Your task to perform on an android device: open app "Gmail" (install if not already installed) Image 0: 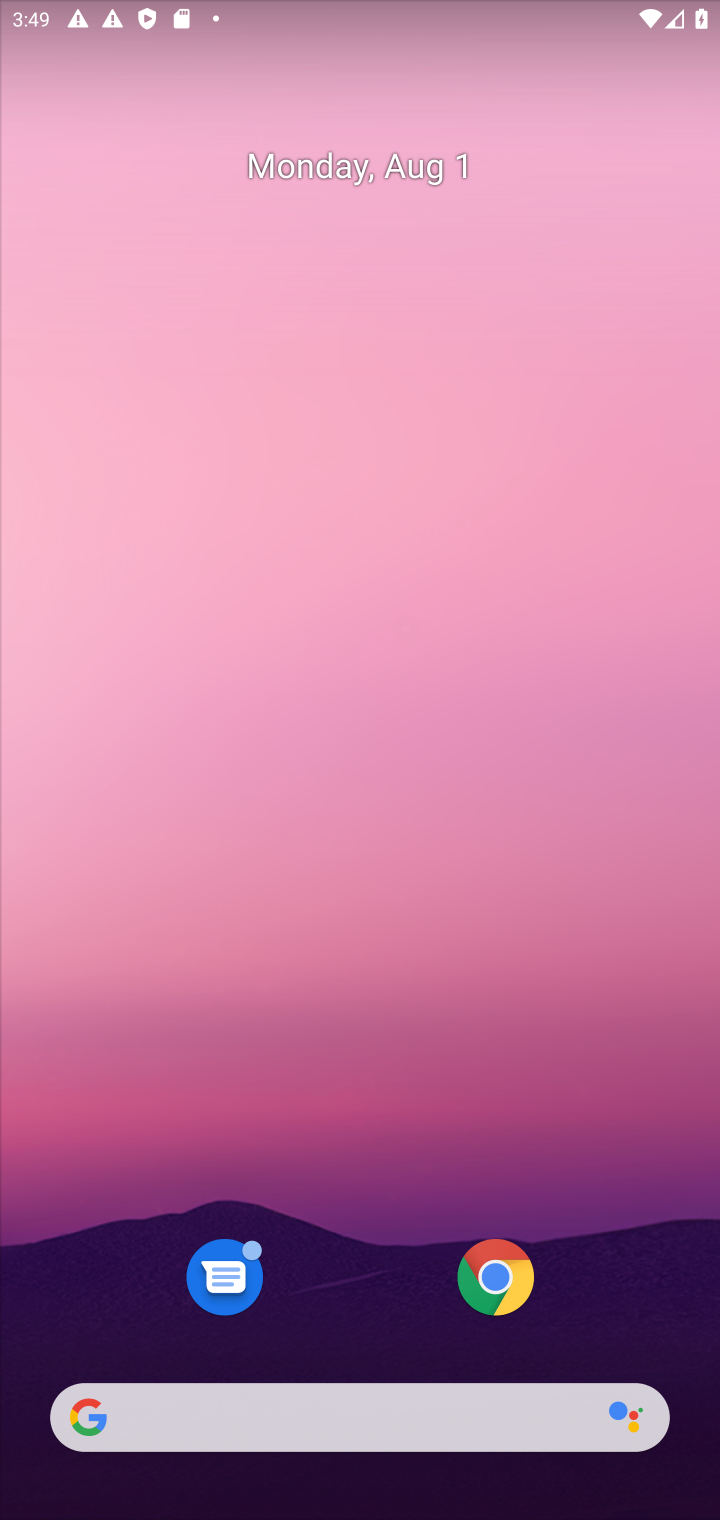
Step 0: drag from (338, 66) to (565, 92)
Your task to perform on an android device: open app "Gmail" (install if not already installed) Image 1: 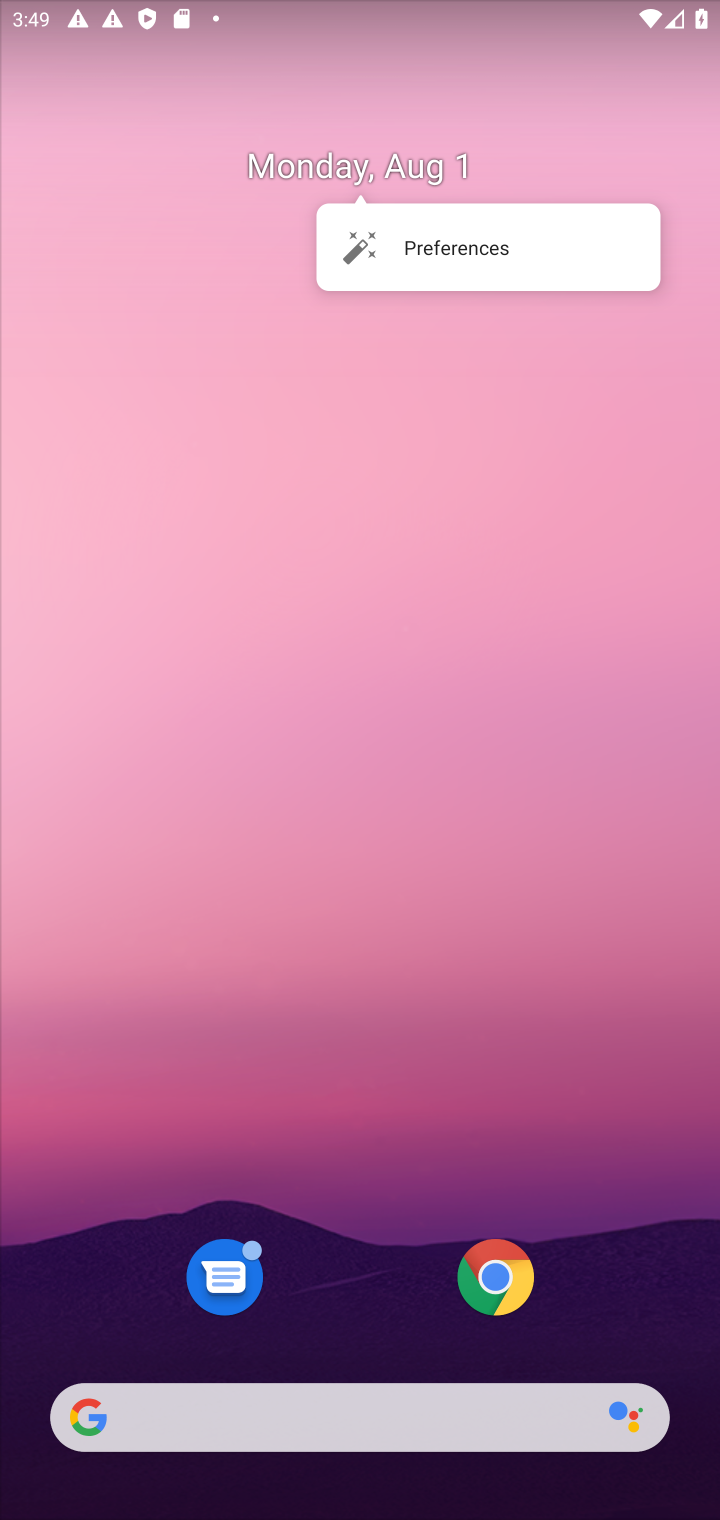
Step 1: drag from (345, 1266) to (686, 22)
Your task to perform on an android device: open app "Gmail" (install if not already installed) Image 2: 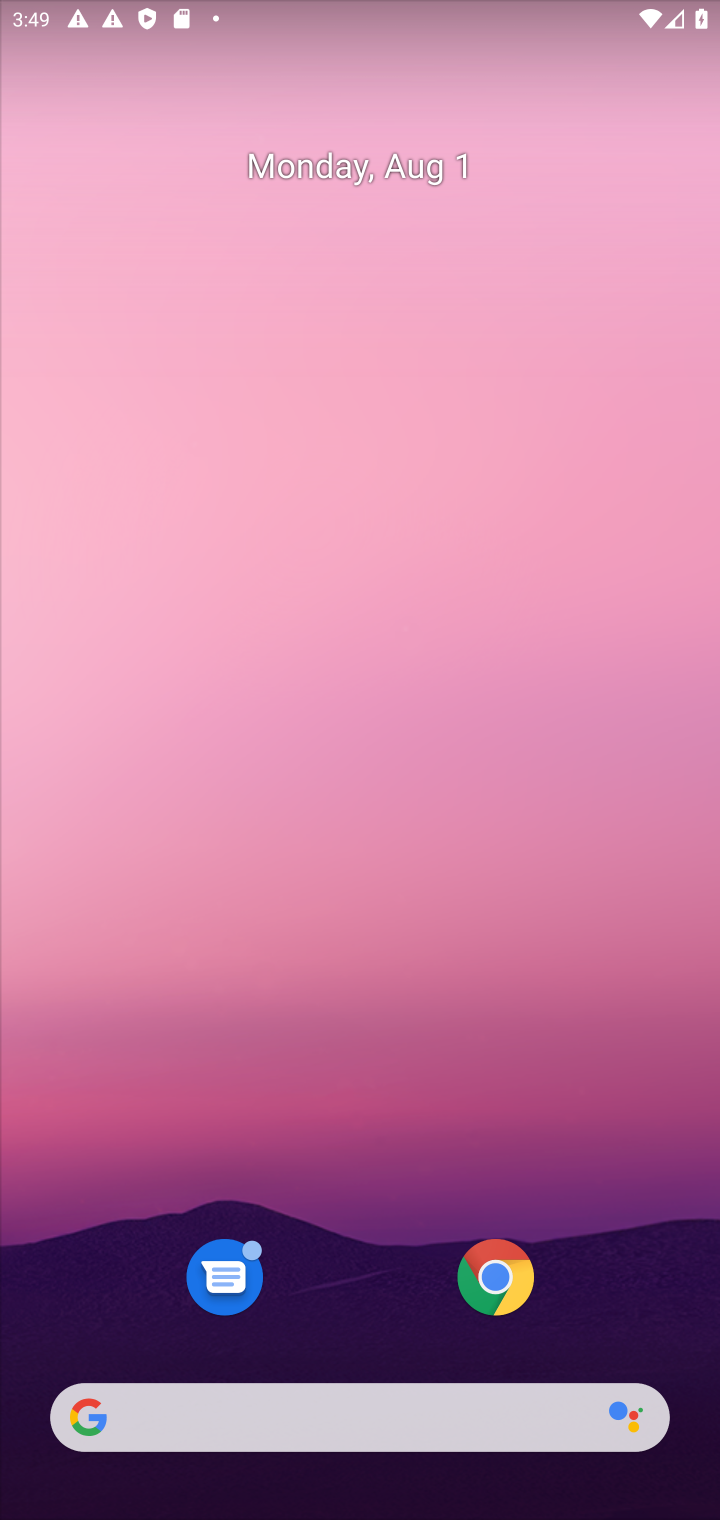
Step 2: drag from (241, 581) to (187, 47)
Your task to perform on an android device: open app "Gmail" (install if not already installed) Image 3: 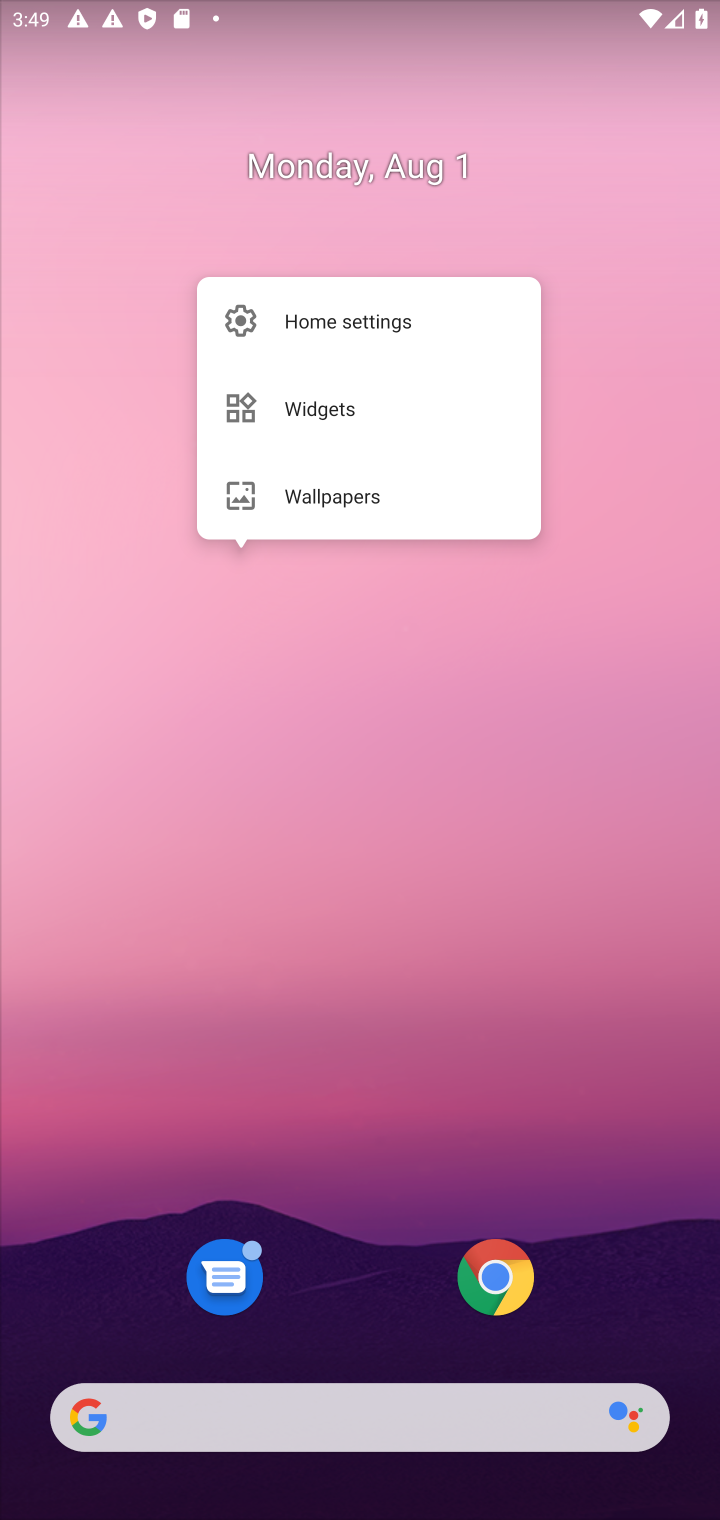
Step 3: drag from (364, 1330) to (446, 5)
Your task to perform on an android device: open app "Gmail" (install if not already installed) Image 4: 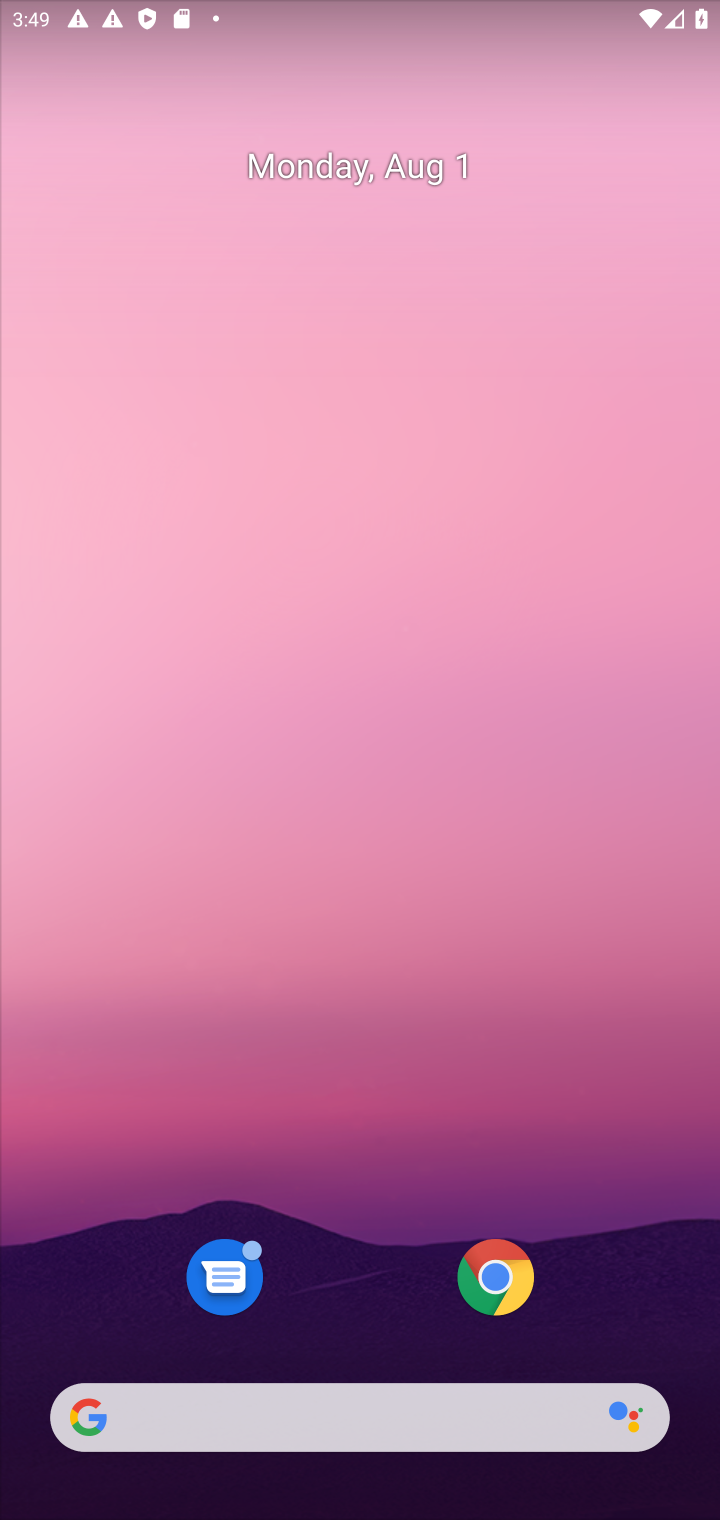
Step 4: drag from (336, 1335) to (413, 31)
Your task to perform on an android device: open app "Gmail" (install if not already installed) Image 5: 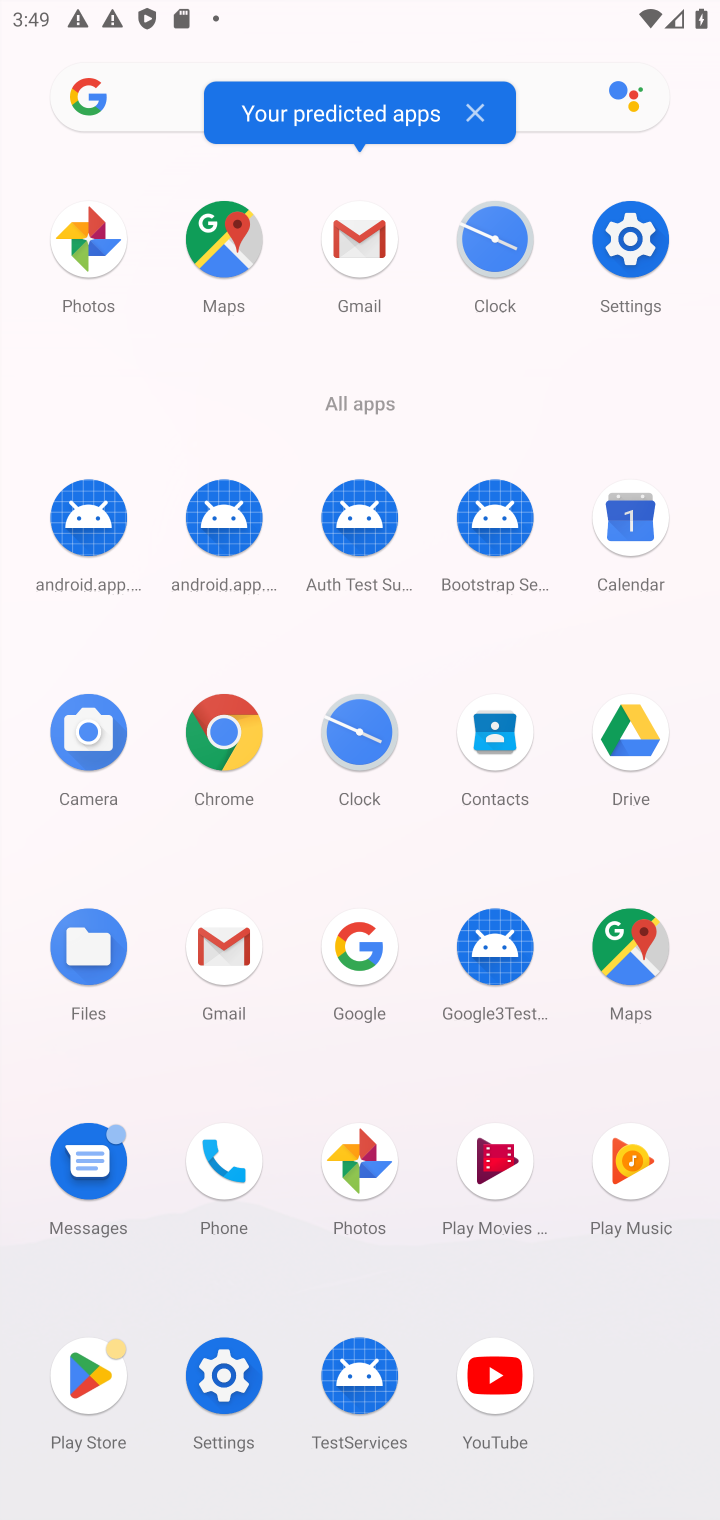
Step 5: click (382, 242)
Your task to perform on an android device: open app "Gmail" (install if not already installed) Image 6: 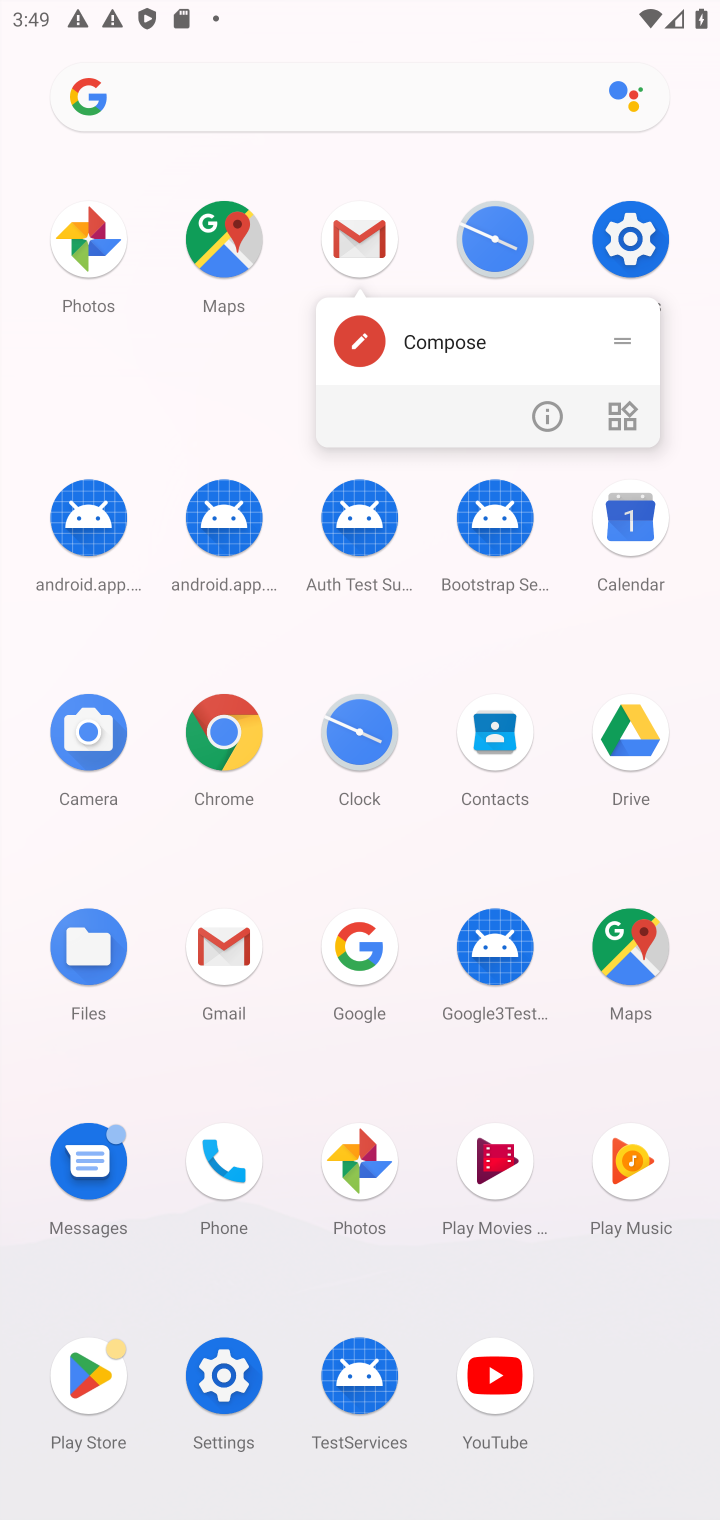
Step 6: click (372, 241)
Your task to perform on an android device: open app "Gmail" (install if not already installed) Image 7: 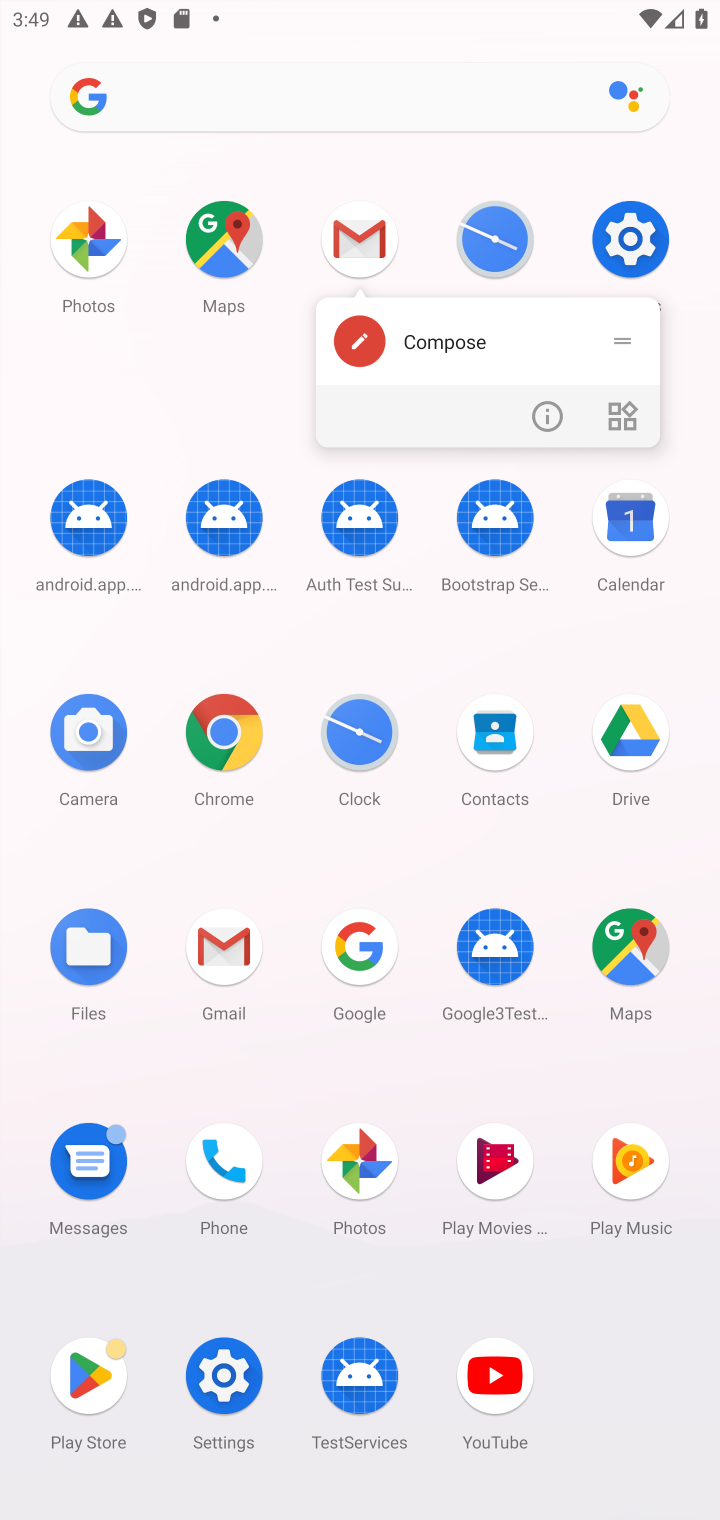
Step 7: click (359, 222)
Your task to perform on an android device: open app "Gmail" (install if not already installed) Image 8: 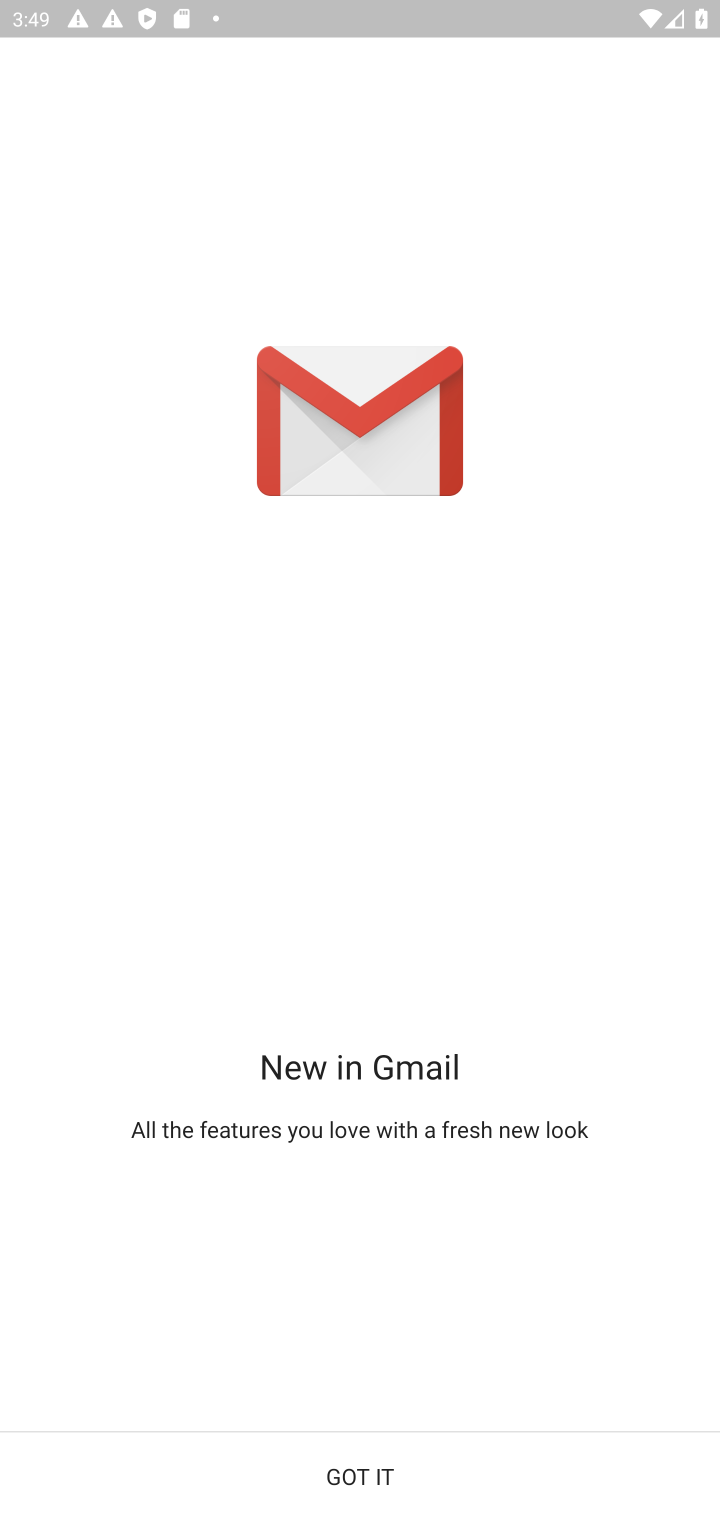
Step 8: click (395, 1496)
Your task to perform on an android device: open app "Gmail" (install if not already installed) Image 9: 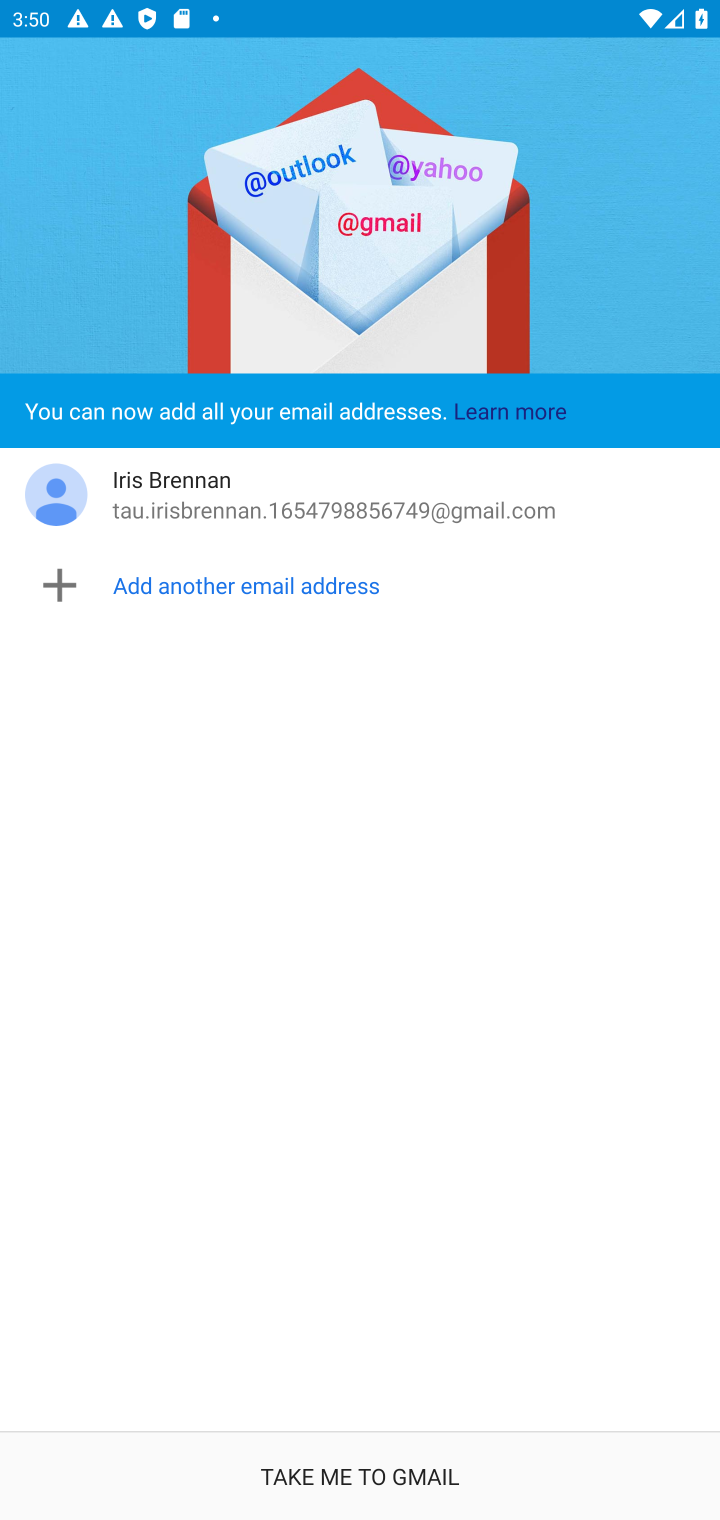
Step 9: click (427, 1467)
Your task to perform on an android device: open app "Gmail" (install if not already installed) Image 10: 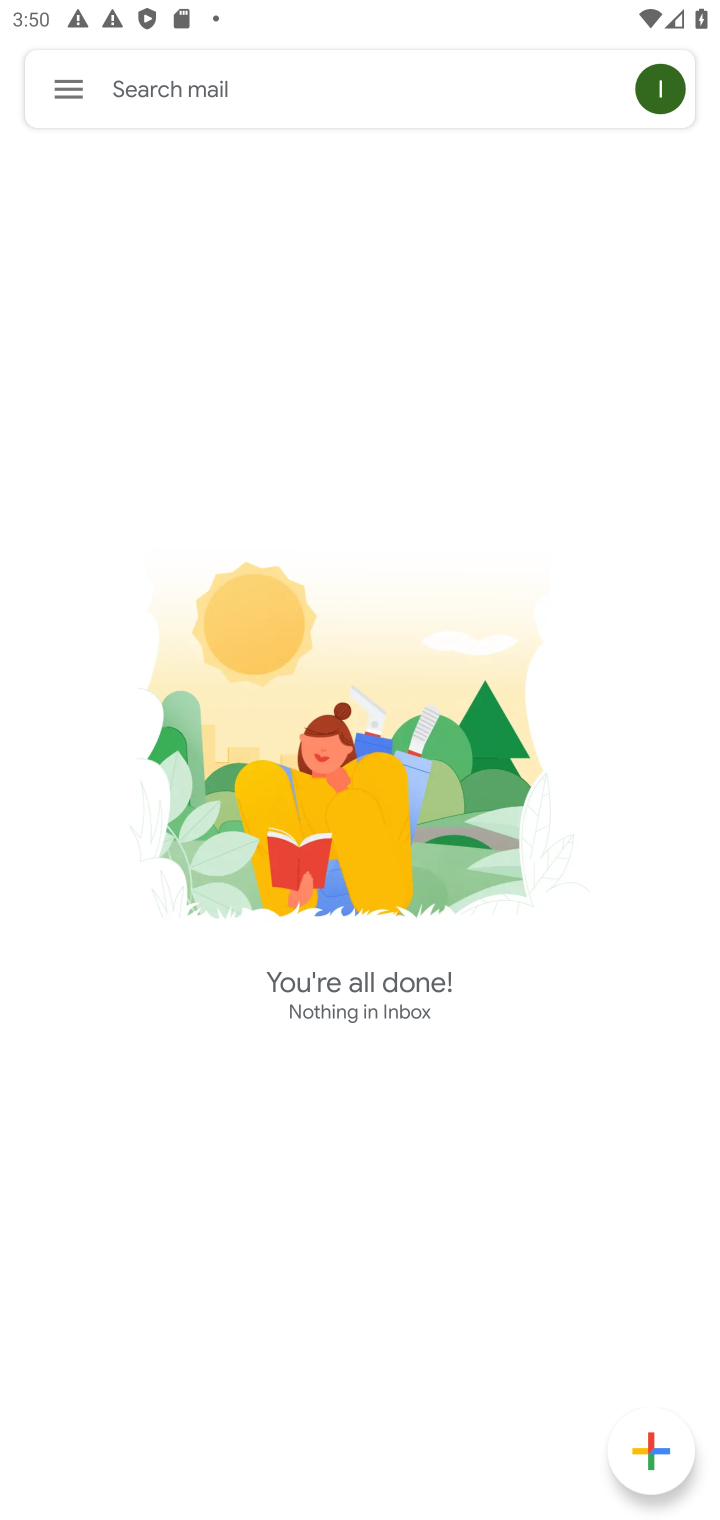
Step 10: click (289, 254)
Your task to perform on an android device: open app "Gmail" (install if not already installed) Image 11: 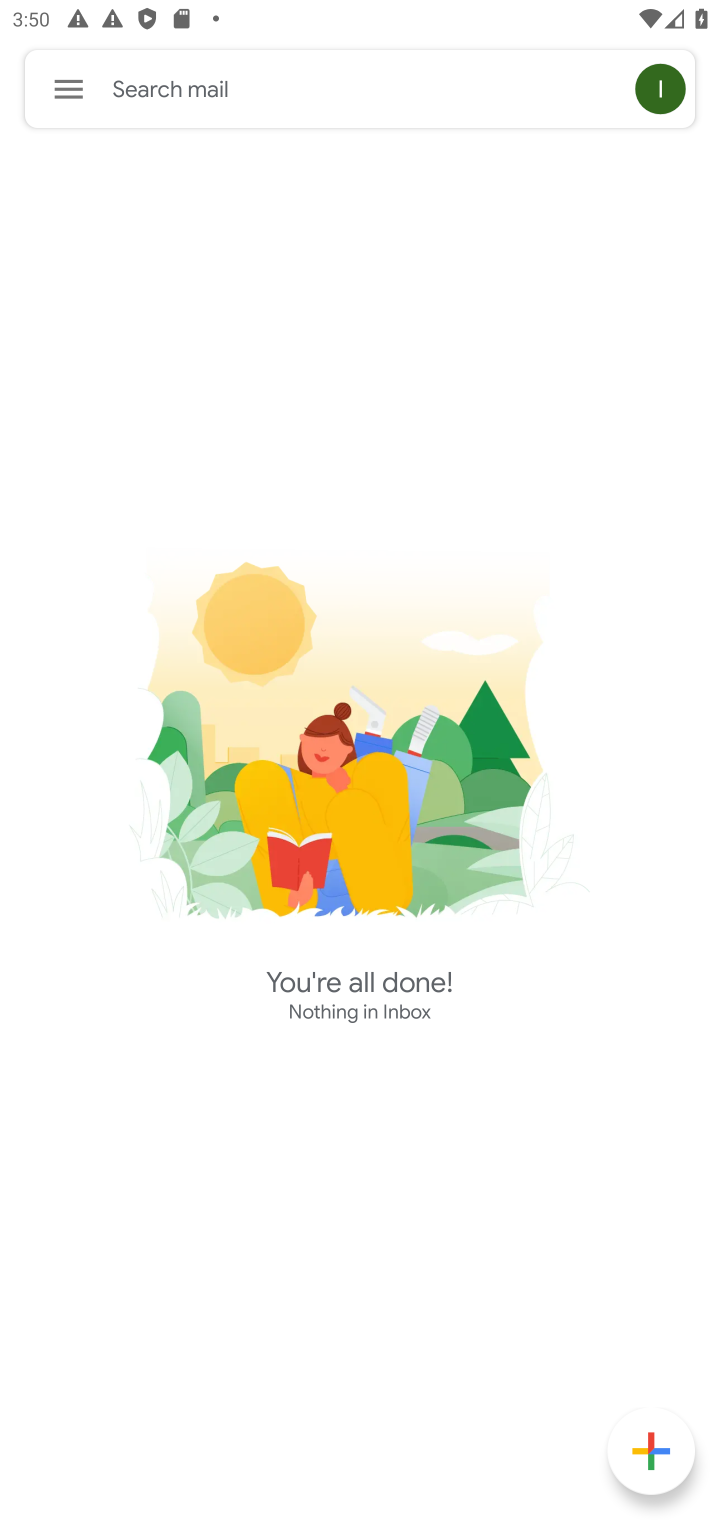
Step 11: task complete